Your task to perform on an android device: Go to privacy settings Image 0: 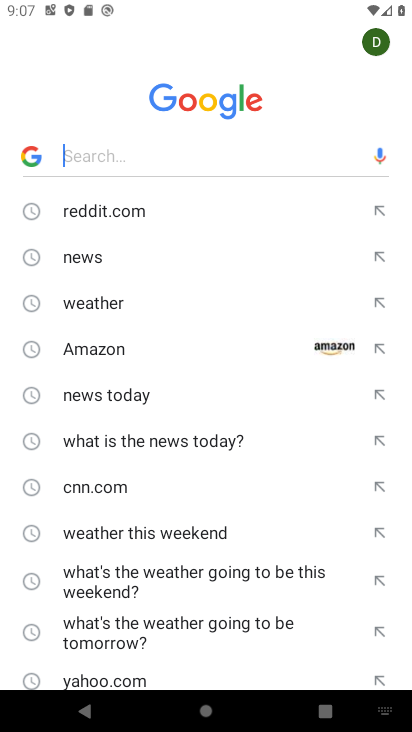
Step 0: press home button
Your task to perform on an android device: Go to privacy settings Image 1: 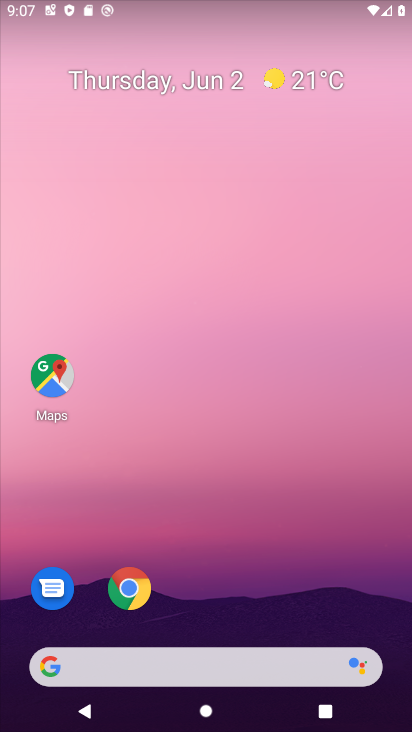
Step 1: drag from (196, 661) to (246, 150)
Your task to perform on an android device: Go to privacy settings Image 2: 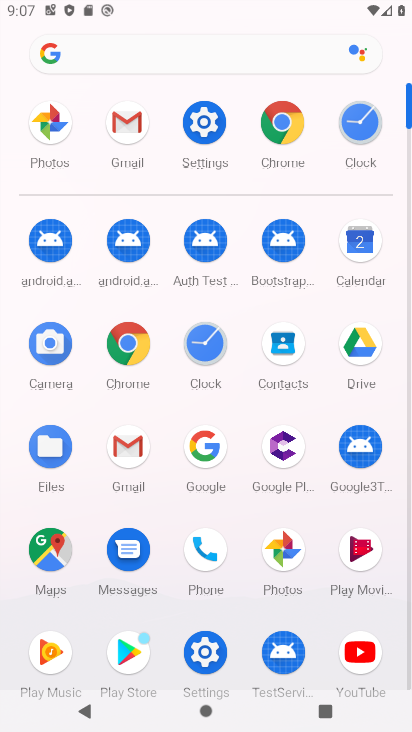
Step 2: click (202, 112)
Your task to perform on an android device: Go to privacy settings Image 3: 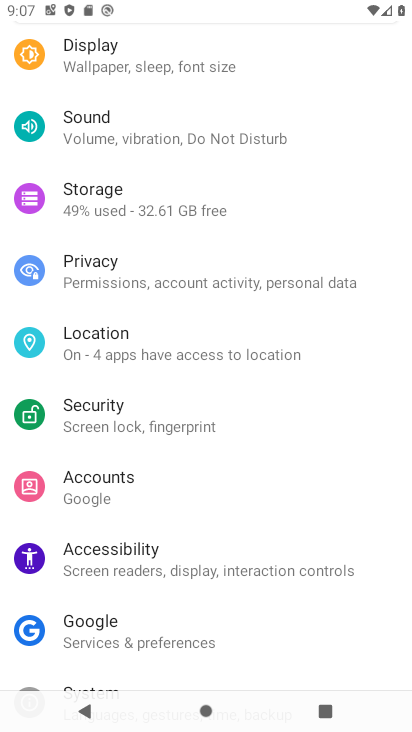
Step 3: click (139, 264)
Your task to perform on an android device: Go to privacy settings Image 4: 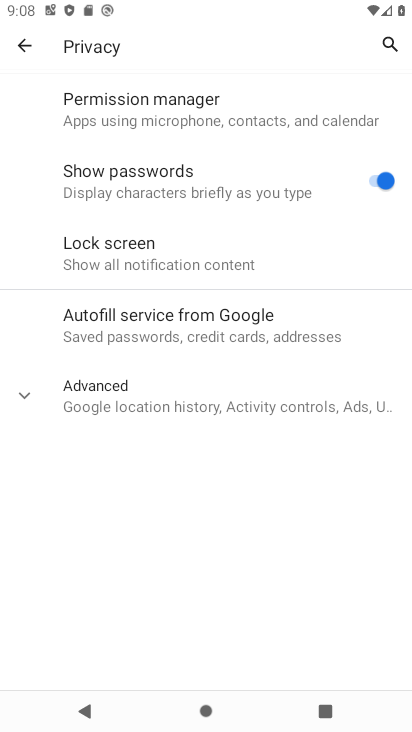
Step 4: task complete